Your task to perform on an android device: Open display settings Image 0: 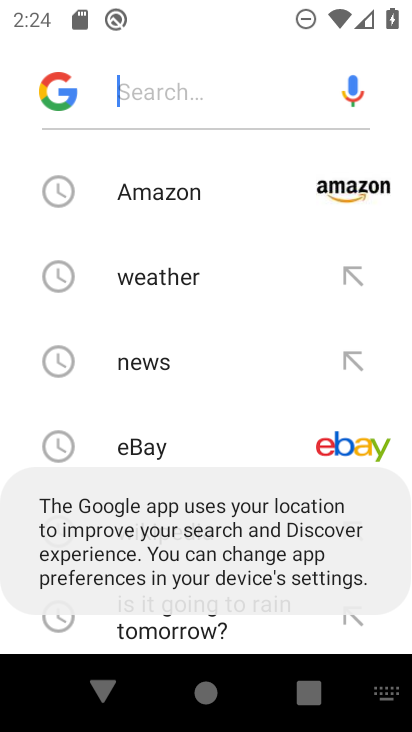
Step 0: press home button
Your task to perform on an android device: Open display settings Image 1: 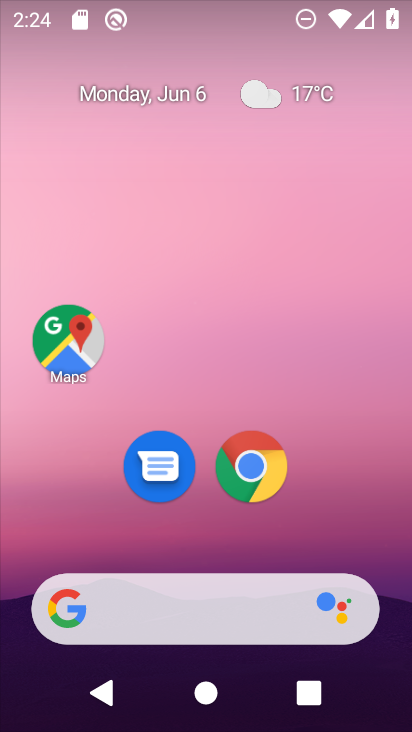
Step 1: drag from (181, 549) to (186, 122)
Your task to perform on an android device: Open display settings Image 2: 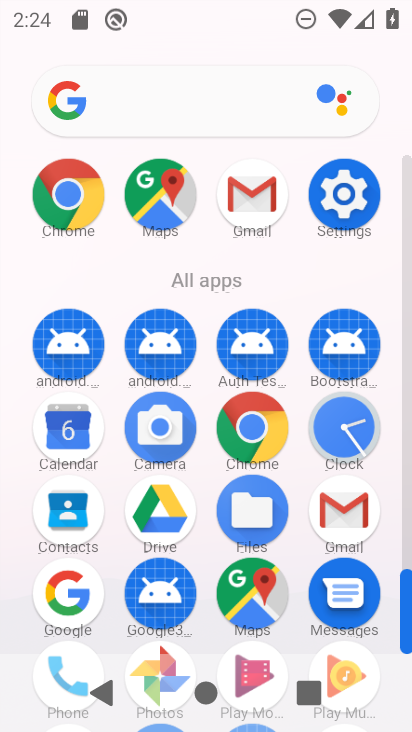
Step 2: click (336, 193)
Your task to perform on an android device: Open display settings Image 3: 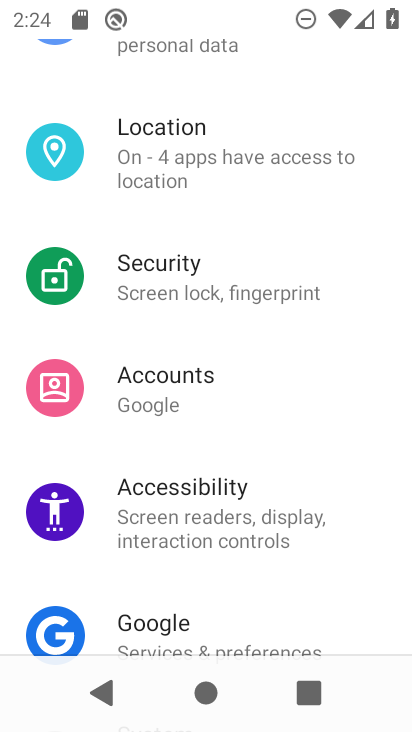
Step 3: drag from (240, 167) to (237, 627)
Your task to perform on an android device: Open display settings Image 4: 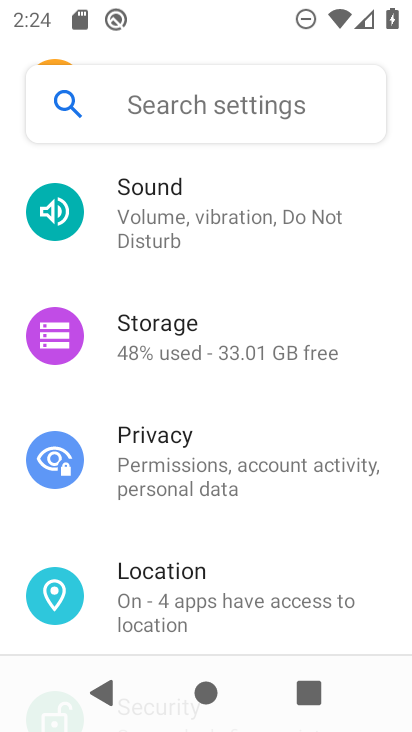
Step 4: drag from (261, 261) to (253, 591)
Your task to perform on an android device: Open display settings Image 5: 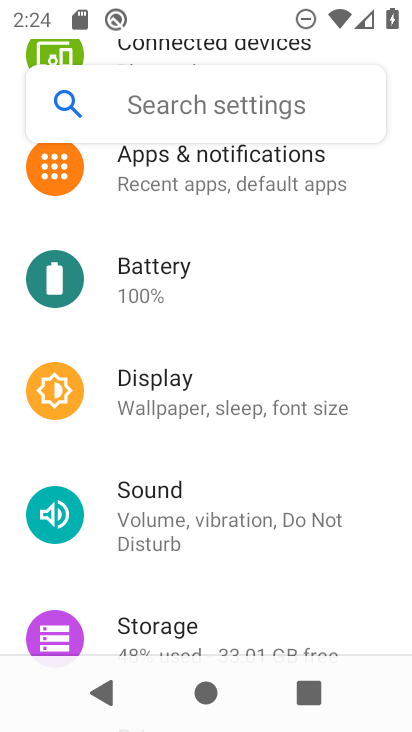
Step 5: click (192, 408)
Your task to perform on an android device: Open display settings Image 6: 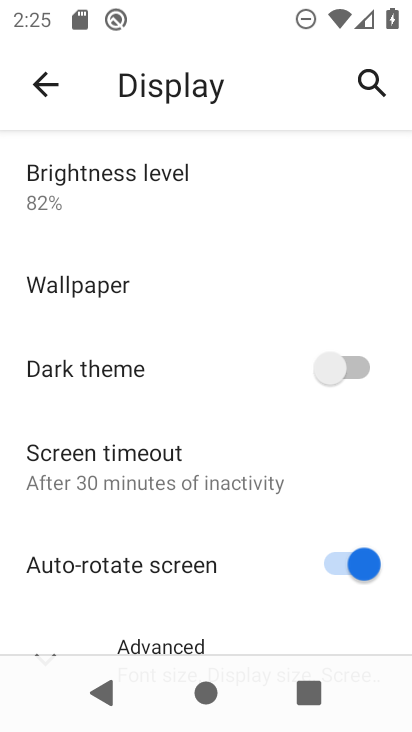
Step 6: task complete